Your task to perform on an android device: Toggle the flashlight Image 0: 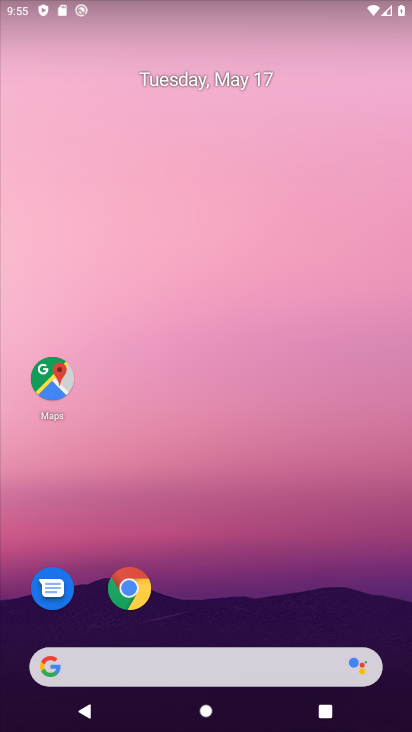
Step 0: drag from (234, 695) to (233, 104)
Your task to perform on an android device: Toggle the flashlight Image 1: 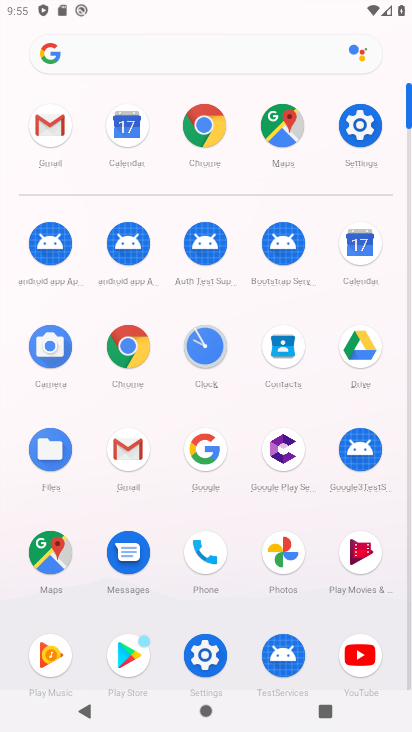
Step 1: click (358, 120)
Your task to perform on an android device: Toggle the flashlight Image 2: 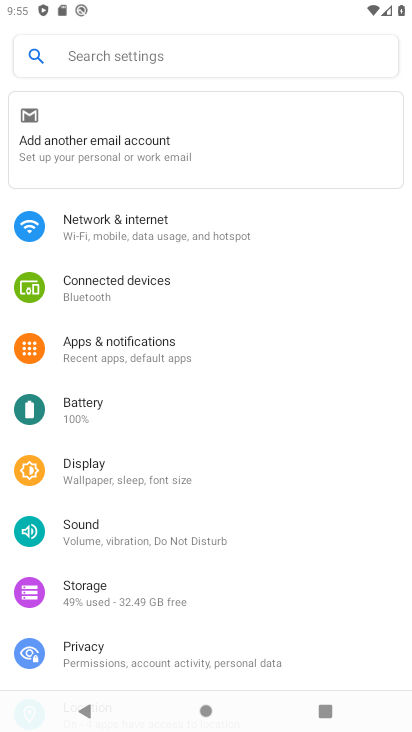
Step 2: task complete